Your task to perform on an android device: Clear the cart on amazon. Add "razer blade" to the cart on amazon Image 0: 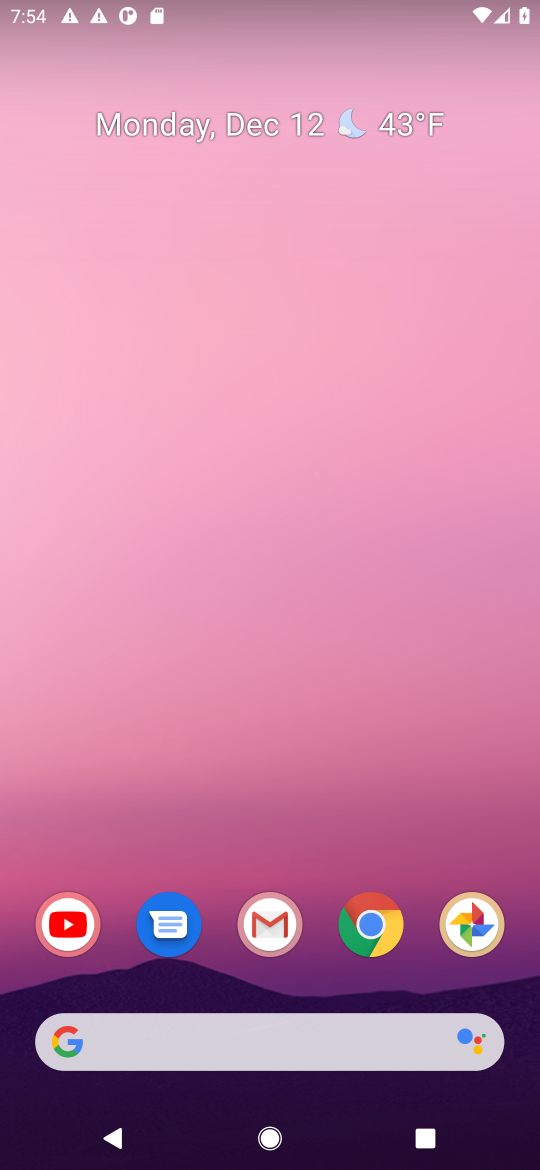
Step 0: click (271, 1031)
Your task to perform on an android device: Clear the cart on amazon. Add "razer blade" to the cart on amazon Image 1: 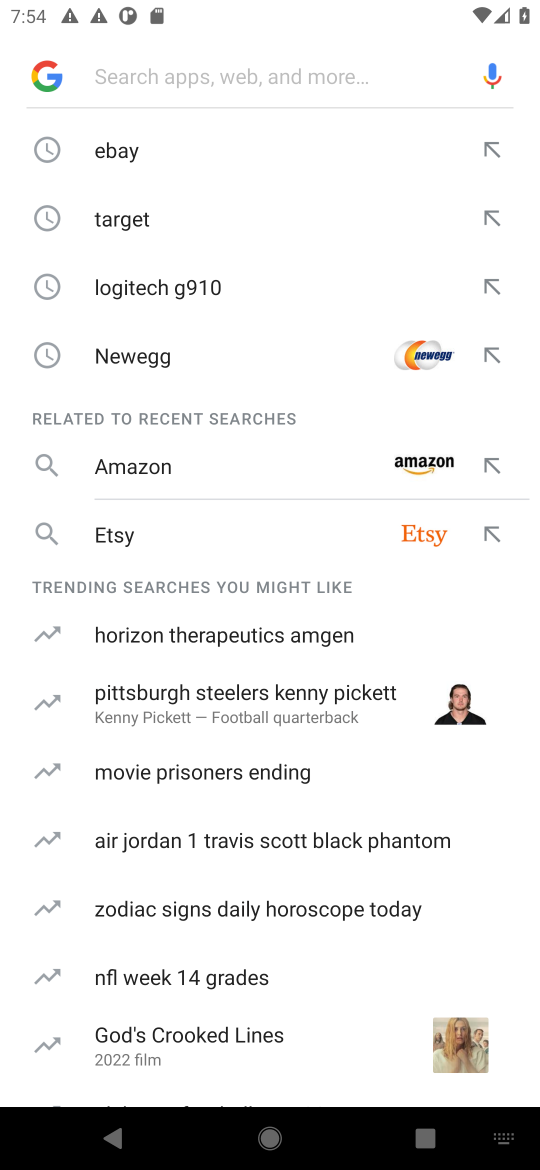
Step 1: click (282, 472)
Your task to perform on an android device: Clear the cart on amazon. Add "razer blade" to the cart on amazon Image 2: 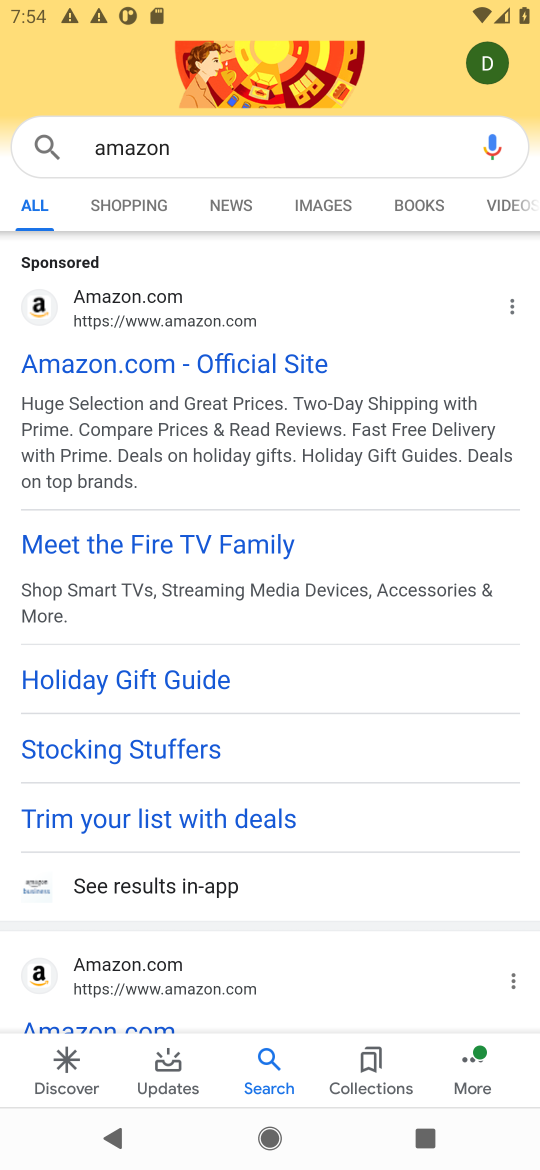
Step 2: click (95, 311)
Your task to perform on an android device: Clear the cart on amazon. Add "razer blade" to the cart on amazon Image 3: 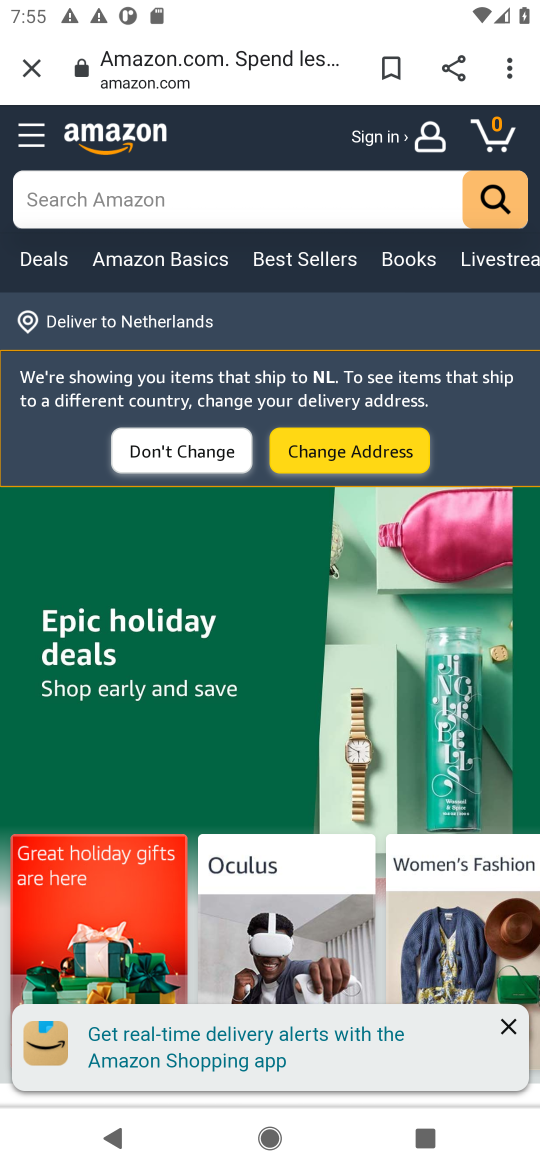
Step 3: click (95, 311)
Your task to perform on an android device: Clear the cart on amazon. Add "razer blade" to the cart on amazon Image 4: 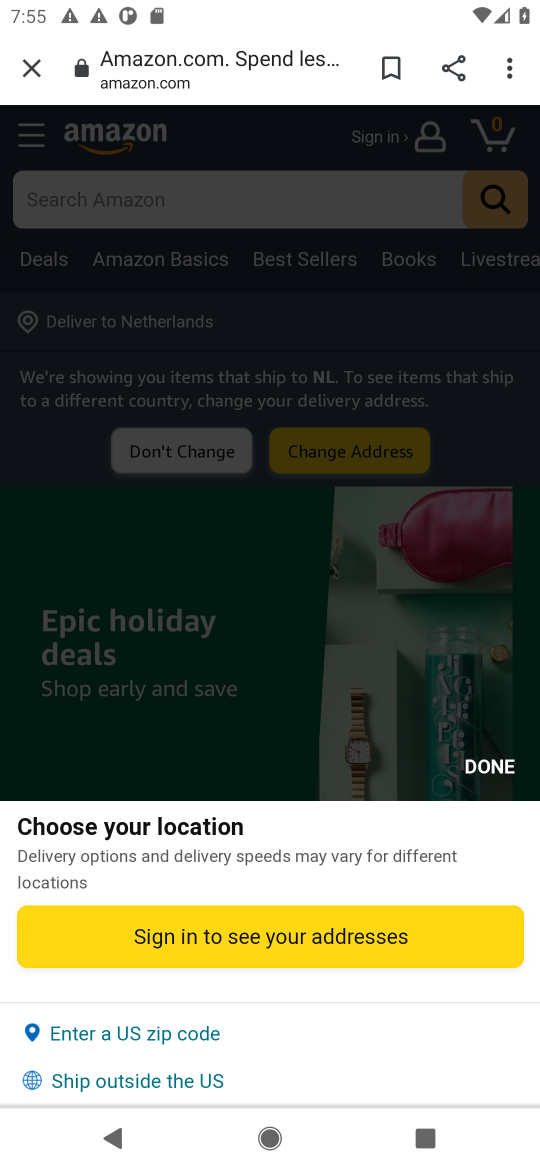
Step 4: click (485, 778)
Your task to perform on an android device: Clear the cart on amazon. Add "razer blade" to the cart on amazon Image 5: 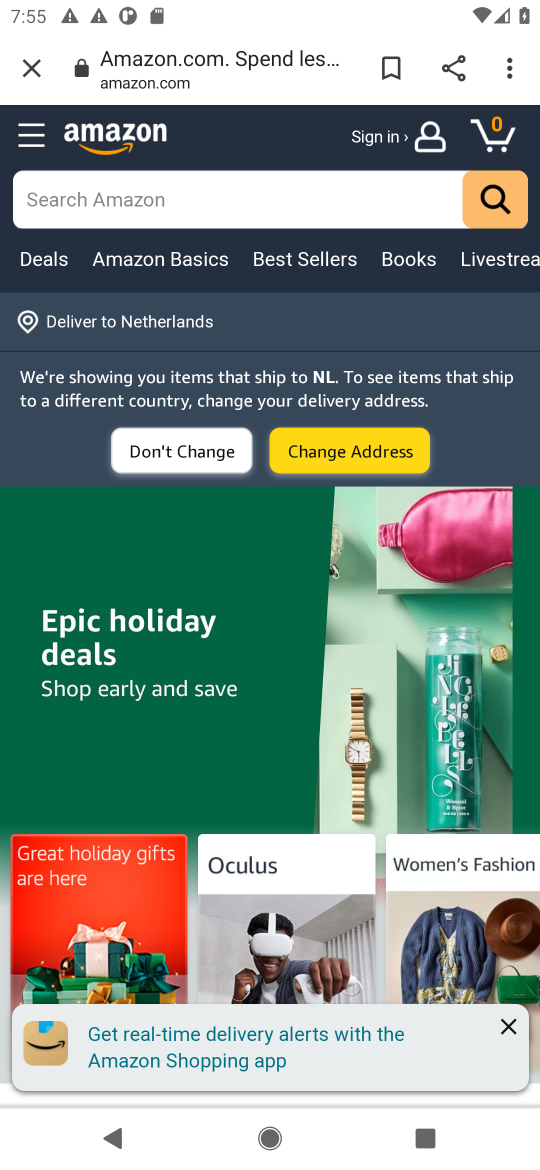
Step 5: click (500, 135)
Your task to perform on an android device: Clear the cart on amazon. Add "razer blade" to the cart on amazon Image 6: 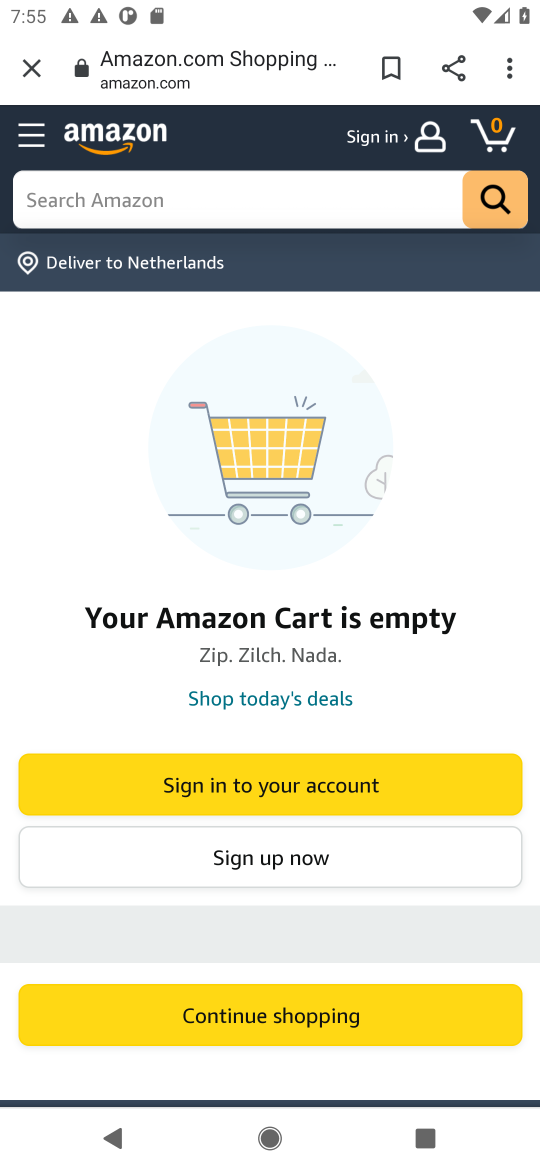
Step 6: click (240, 182)
Your task to perform on an android device: Clear the cart on amazon. Add "razer blade" to the cart on amazon Image 7: 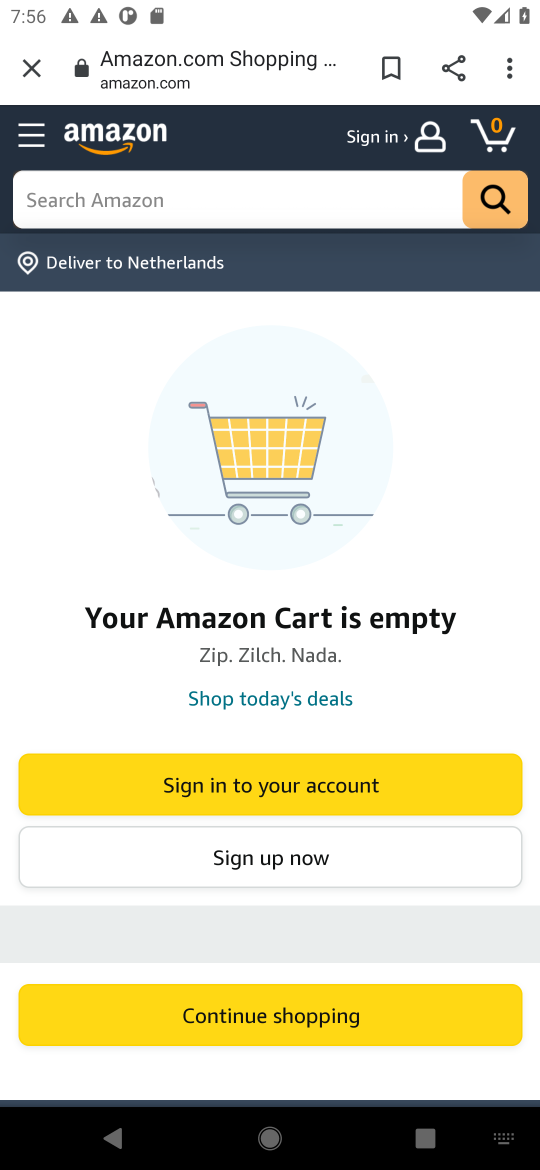
Step 7: type "razer blade"
Your task to perform on an android device: Clear the cart on amazon. Add "razer blade" to the cart on amazon Image 8: 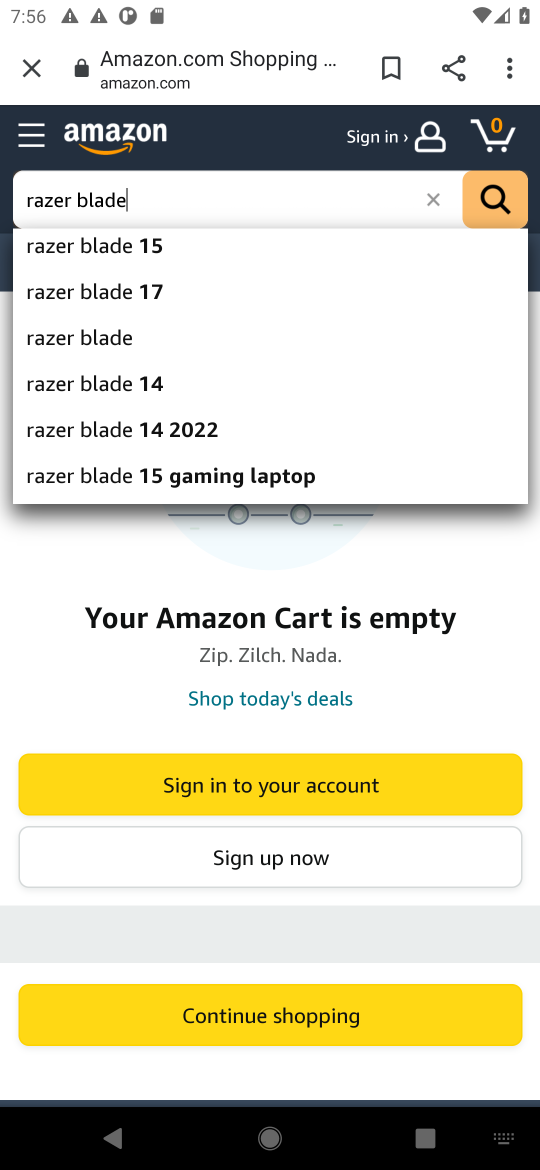
Step 8: click (73, 337)
Your task to perform on an android device: Clear the cart on amazon. Add "razer blade" to the cart on amazon Image 9: 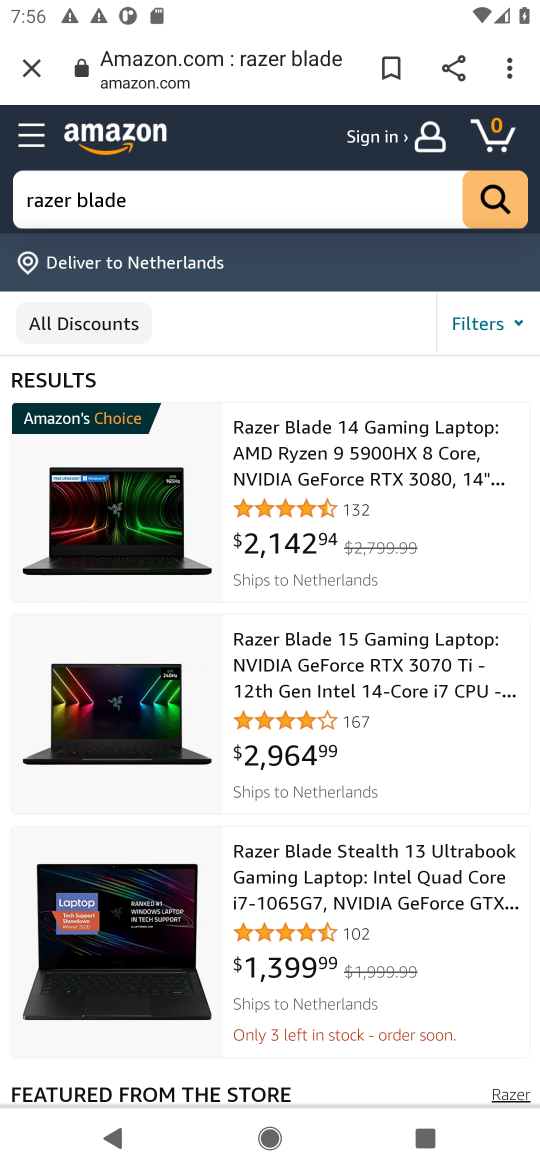
Step 9: click (277, 489)
Your task to perform on an android device: Clear the cart on amazon. Add "razer blade" to the cart on amazon Image 10: 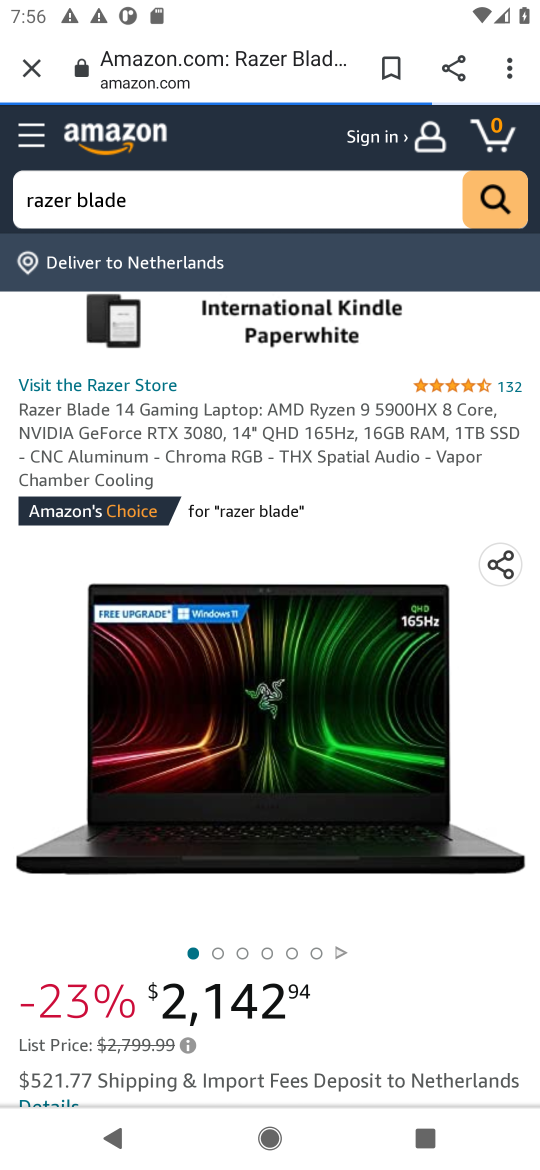
Step 10: drag from (244, 761) to (236, 464)
Your task to perform on an android device: Clear the cart on amazon. Add "razer blade" to the cart on amazon Image 11: 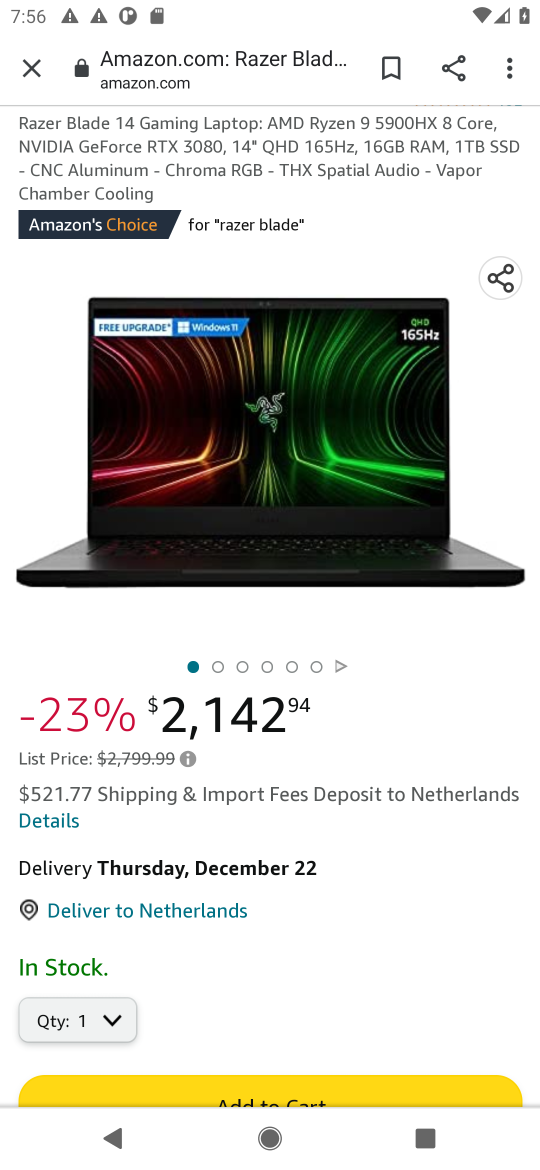
Step 11: click (279, 601)
Your task to perform on an android device: Clear the cart on amazon. Add "razer blade" to the cart on amazon Image 12: 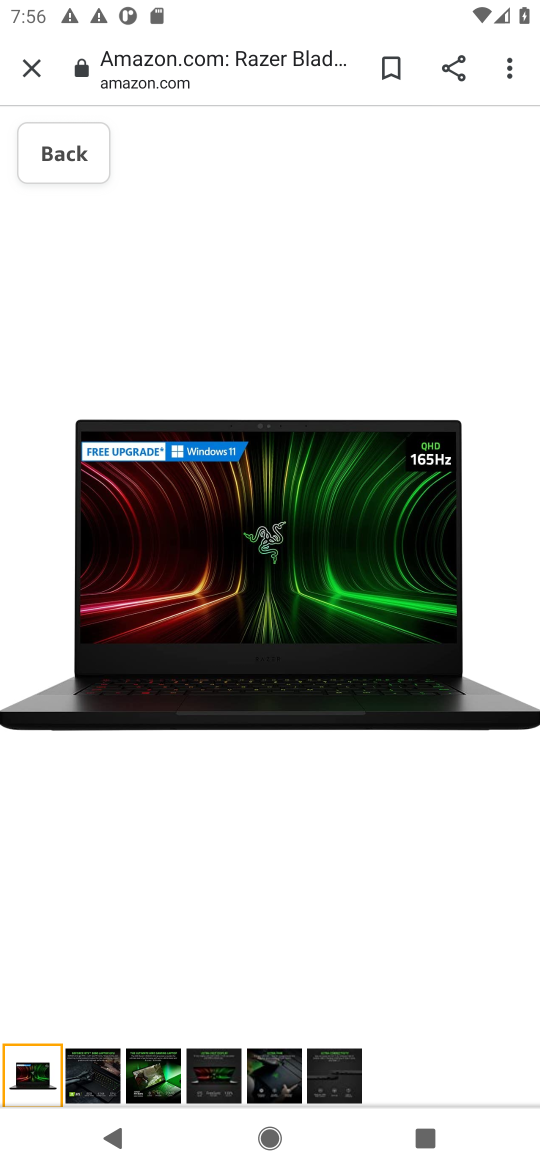
Step 12: drag from (256, 683) to (206, 335)
Your task to perform on an android device: Clear the cart on amazon. Add "razer blade" to the cart on amazon Image 13: 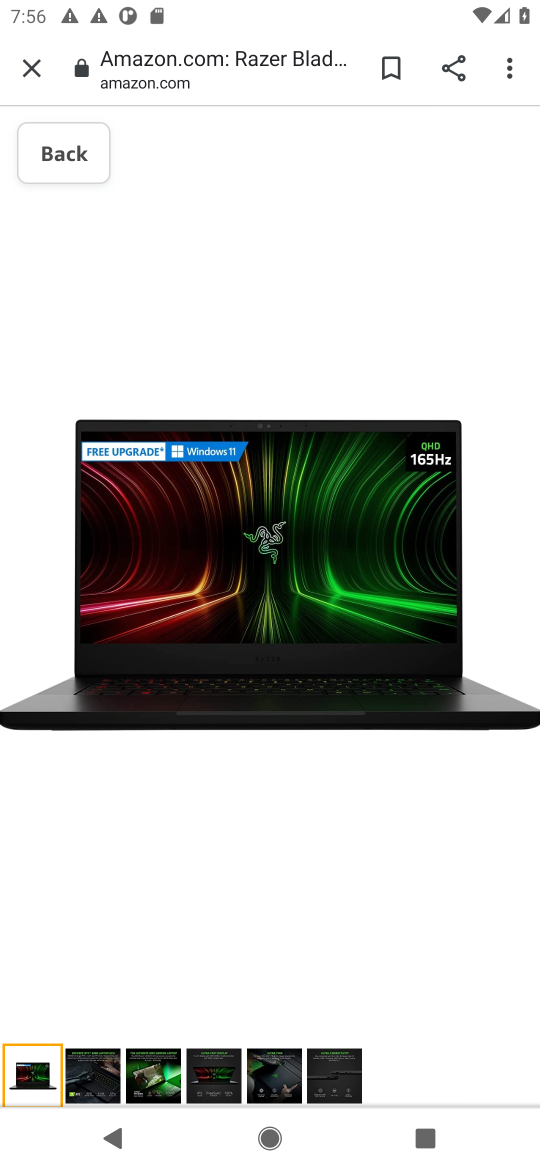
Step 13: click (33, 146)
Your task to perform on an android device: Clear the cart on amazon. Add "razer blade" to the cart on amazon Image 14: 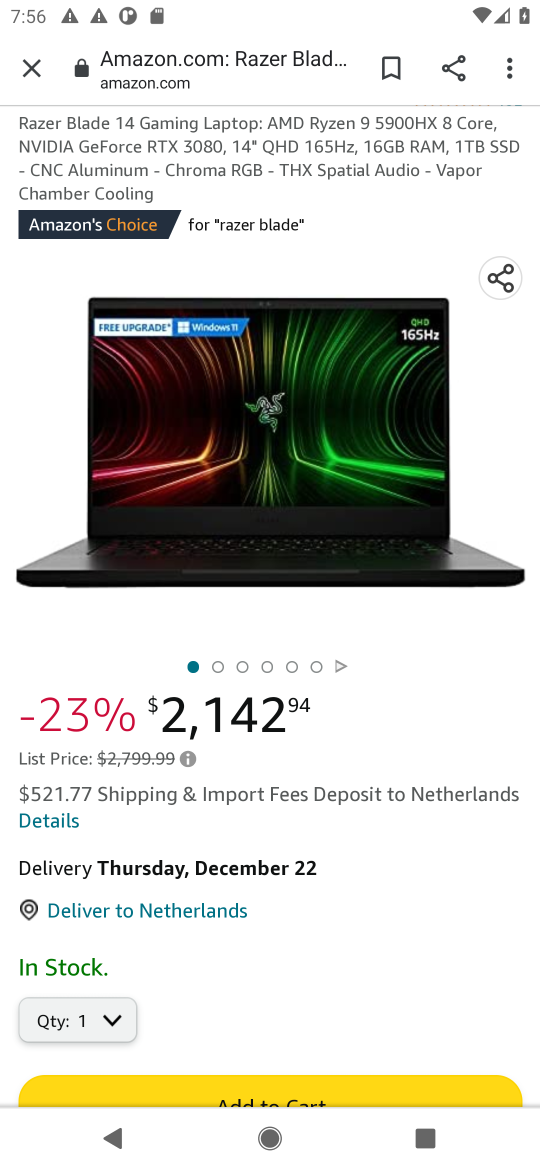
Step 14: drag from (299, 752) to (297, 609)
Your task to perform on an android device: Clear the cart on amazon. Add "razer blade" to the cart on amazon Image 15: 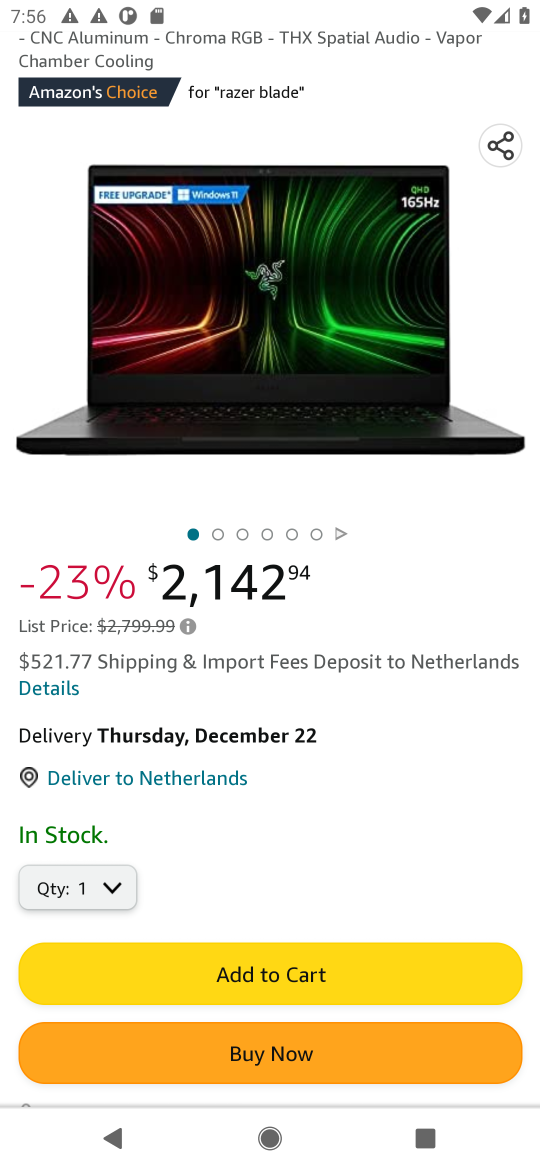
Step 15: click (265, 977)
Your task to perform on an android device: Clear the cart on amazon. Add "razer blade" to the cart on amazon Image 16: 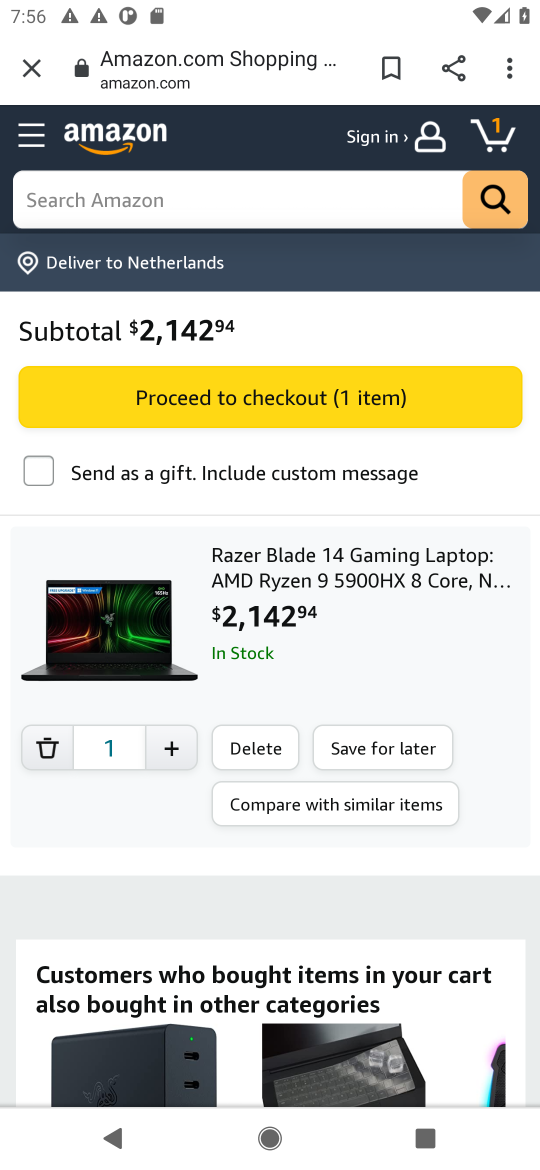
Step 16: task complete